Your task to perform on an android device: Open ESPN.com Image 0: 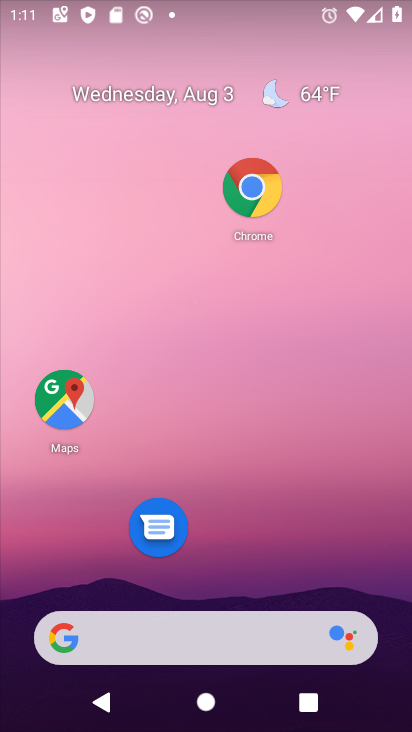
Step 0: drag from (230, 599) to (307, 53)
Your task to perform on an android device: Open ESPN.com Image 1: 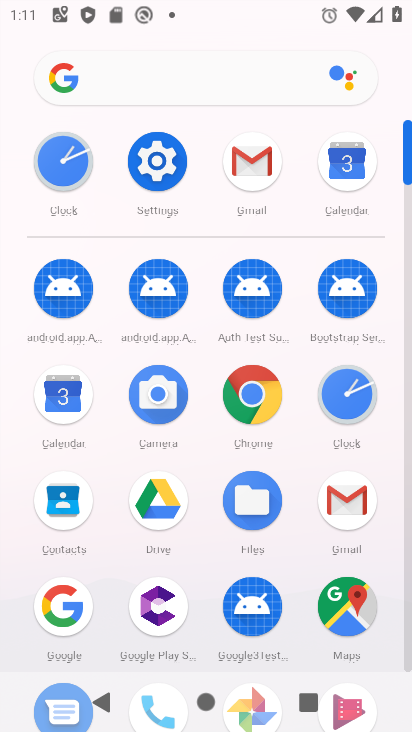
Step 1: drag from (192, 606) to (246, 296)
Your task to perform on an android device: Open ESPN.com Image 2: 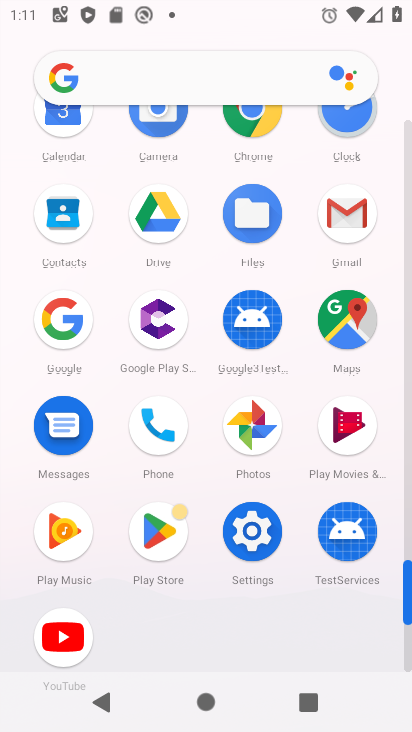
Step 2: click (252, 125)
Your task to perform on an android device: Open ESPN.com Image 3: 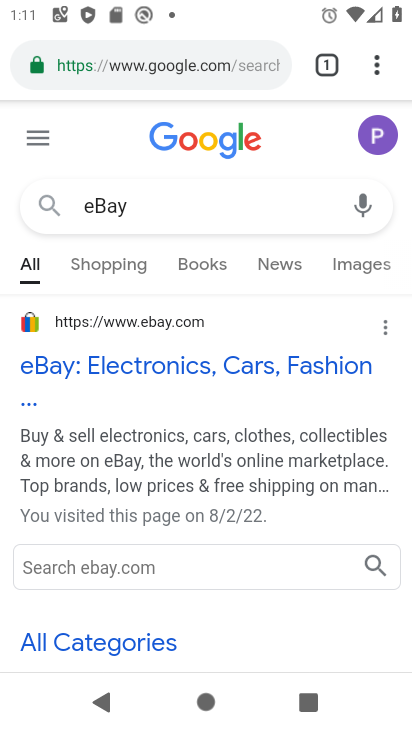
Step 3: click (184, 60)
Your task to perform on an android device: Open ESPN.com Image 4: 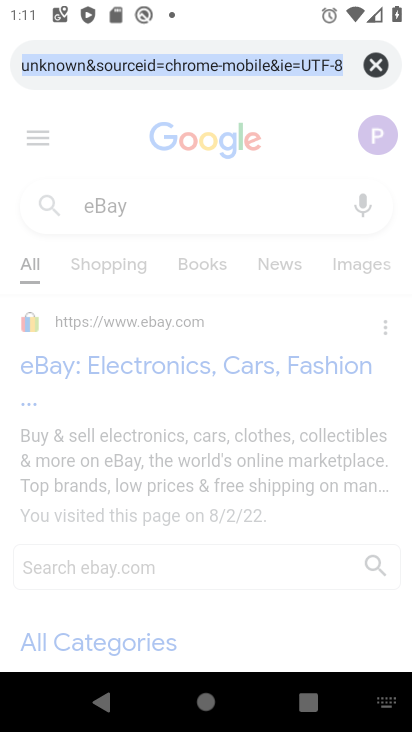
Step 4: type "ESPN.com"
Your task to perform on an android device: Open ESPN.com Image 5: 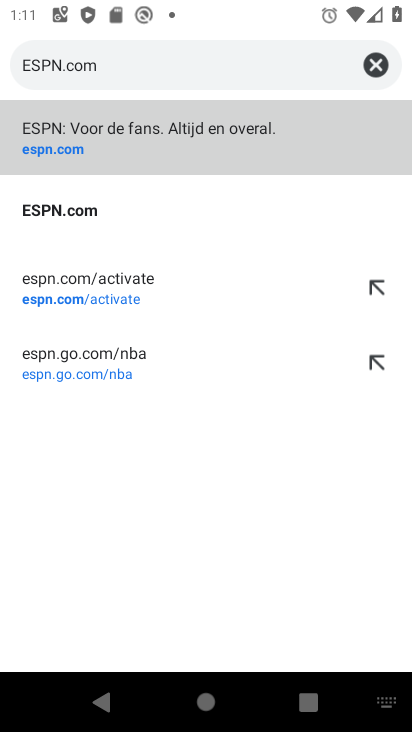
Step 5: click (137, 140)
Your task to perform on an android device: Open ESPN.com Image 6: 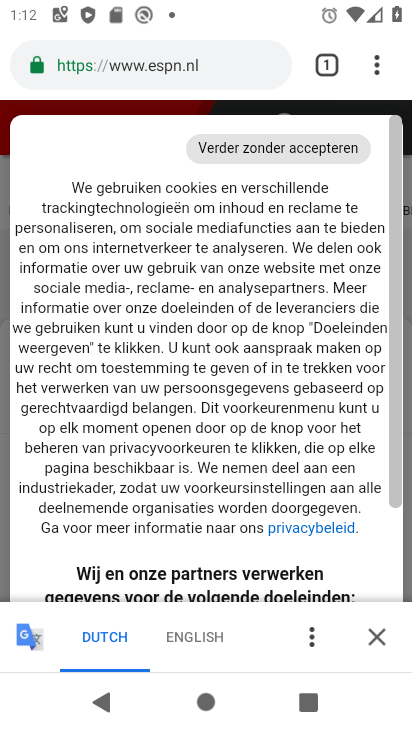
Step 6: task complete